Your task to perform on an android device: Open the web browser Image 0: 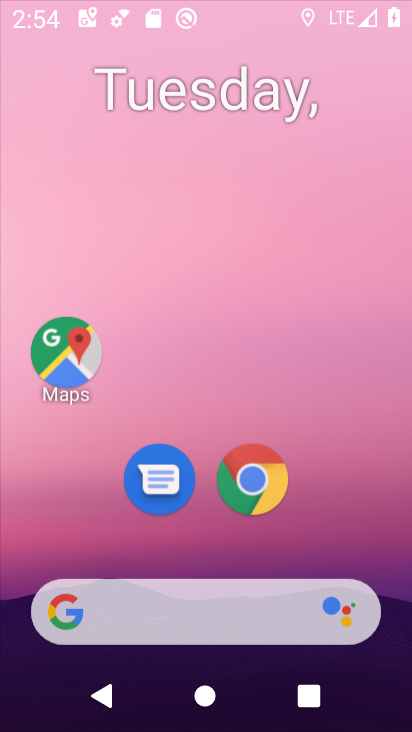
Step 0: press home button
Your task to perform on an android device: Open the web browser Image 1: 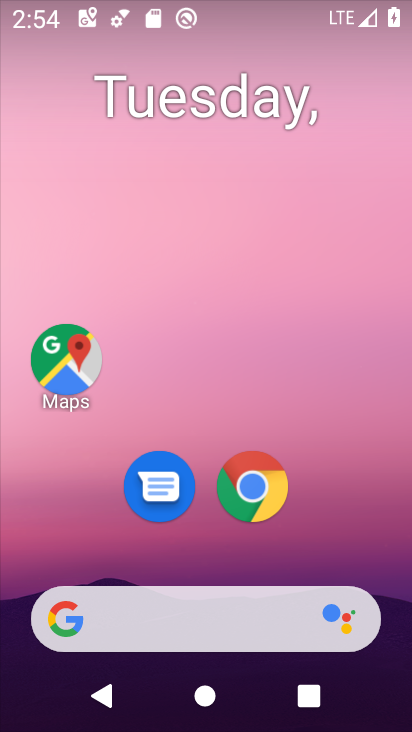
Step 1: click (260, 477)
Your task to perform on an android device: Open the web browser Image 2: 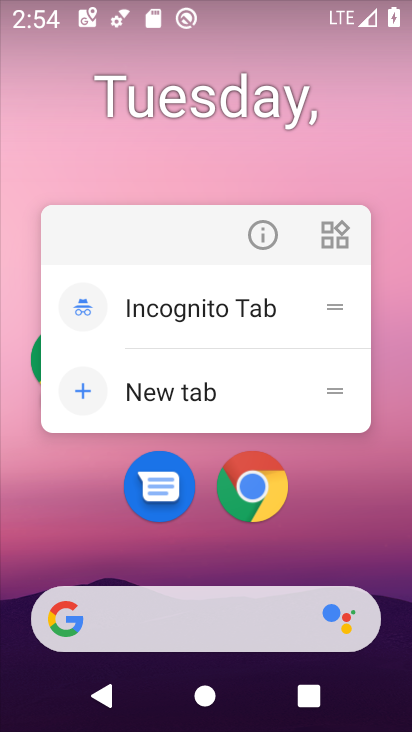
Step 2: click (243, 486)
Your task to perform on an android device: Open the web browser Image 3: 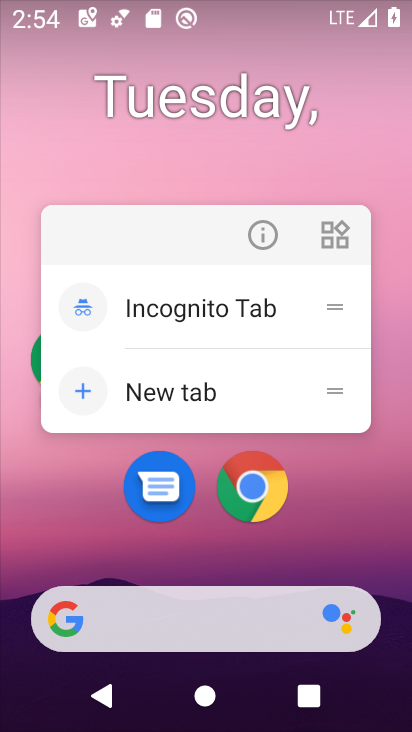
Step 3: click (244, 486)
Your task to perform on an android device: Open the web browser Image 4: 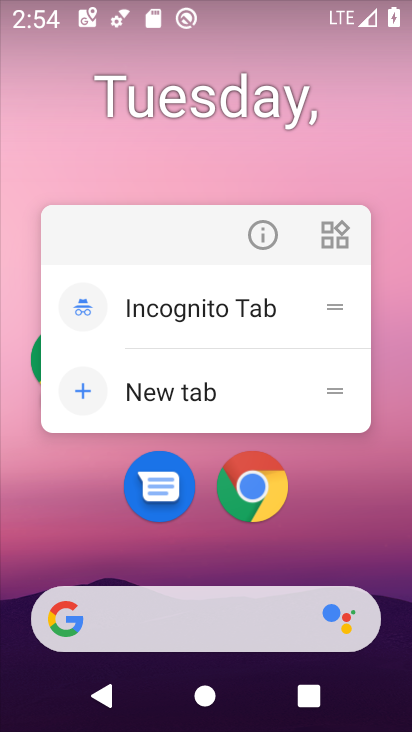
Step 4: drag from (270, 557) to (253, 76)
Your task to perform on an android device: Open the web browser Image 5: 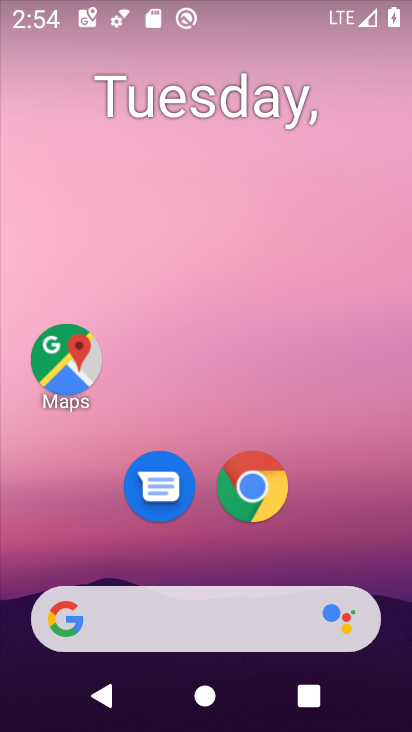
Step 5: drag from (300, 538) to (275, 38)
Your task to perform on an android device: Open the web browser Image 6: 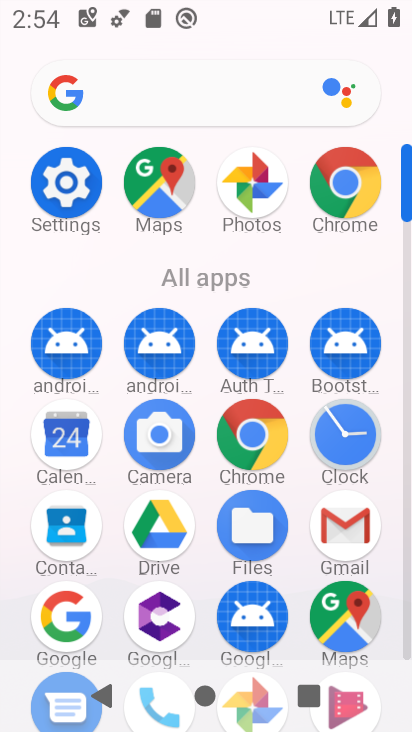
Step 6: click (348, 158)
Your task to perform on an android device: Open the web browser Image 7: 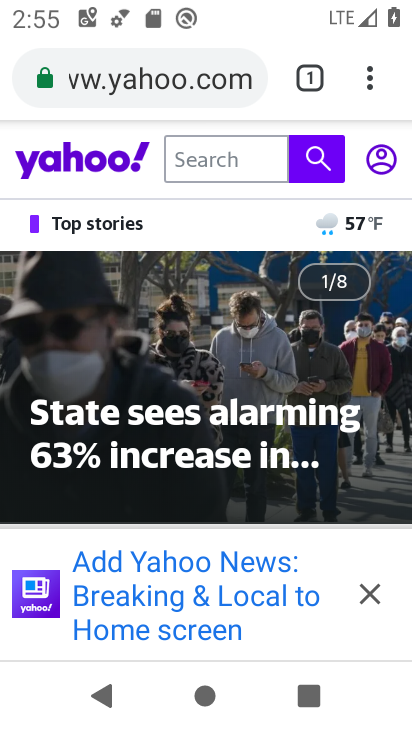
Step 7: click (309, 73)
Your task to perform on an android device: Open the web browser Image 8: 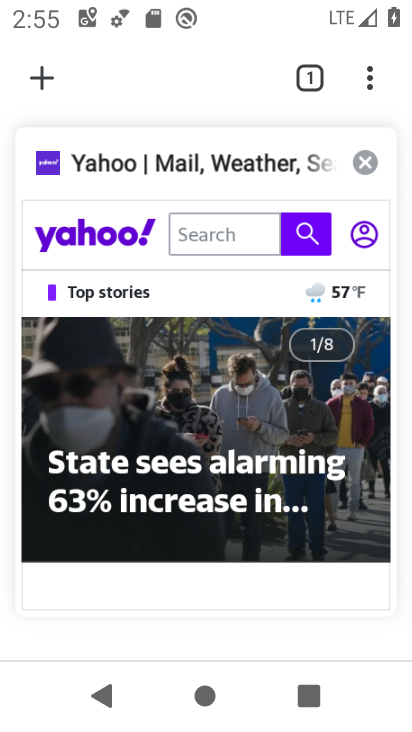
Step 8: click (364, 163)
Your task to perform on an android device: Open the web browser Image 9: 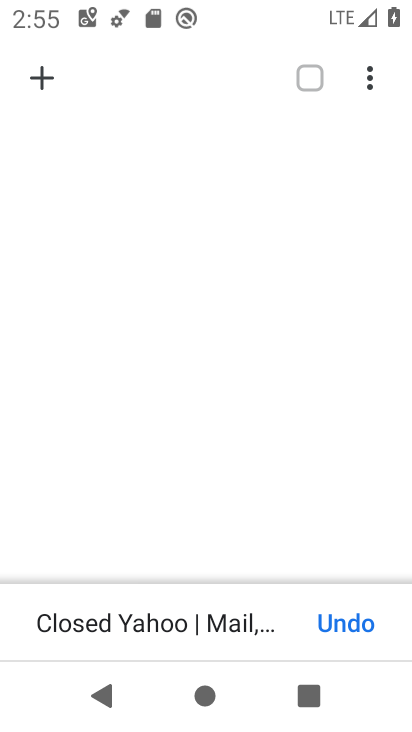
Step 9: click (55, 72)
Your task to perform on an android device: Open the web browser Image 10: 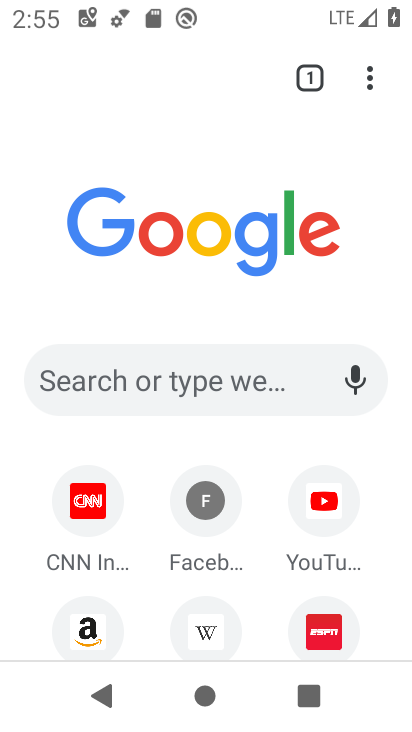
Step 10: task complete